Your task to perform on an android device: What's on my calendar today? Image 0: 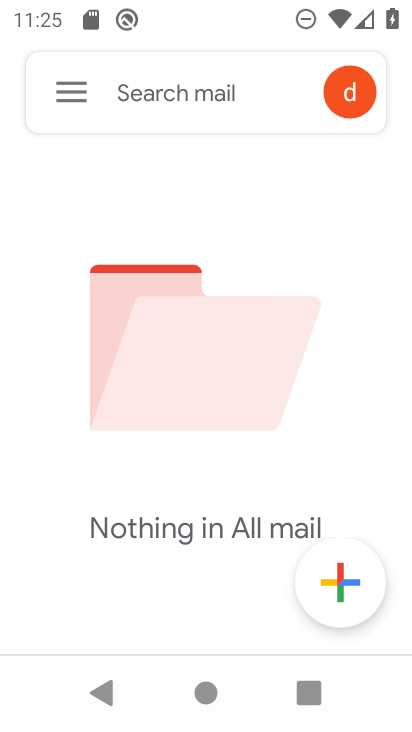
Step 0: press home button
Your task to perform on an android device: What's on my calendar today? Image 1: 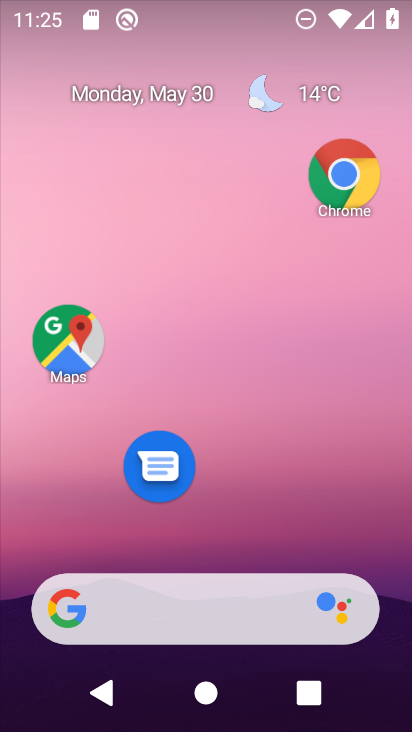
Step 1: drag from (267, 436) to (176, 95)
Your task to perform on an android device: What's on my calendar today? Image 2: 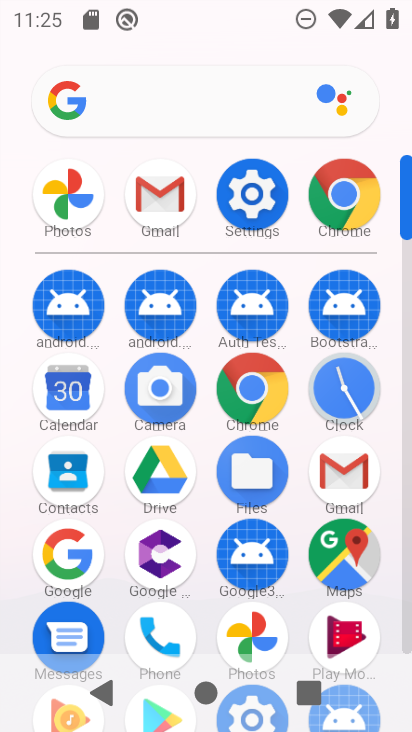
Step 2: click (42, 382)
Your task to perform on an android device: What's on my calendar today? Image 3: 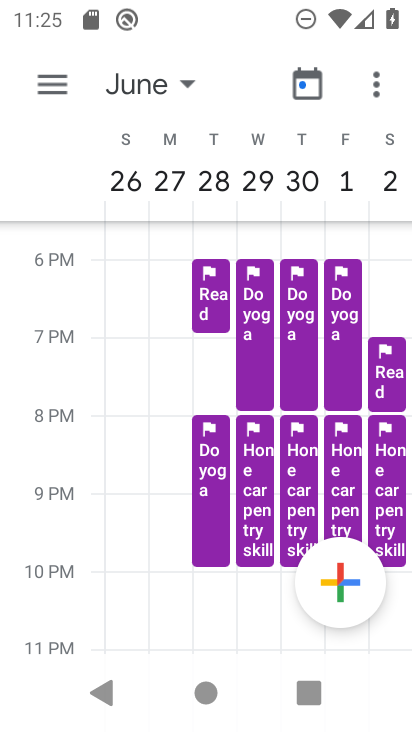
Step 3: click (56, 62)
Your task to perform on an android device: What's on my calendar today? Image 4: 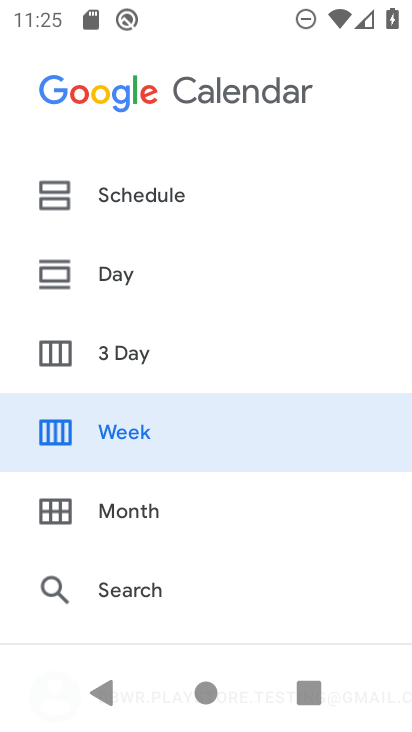
Step 4: click (199, 514)
Your task to perform on an android device: What's on my calendar today? Image 5: 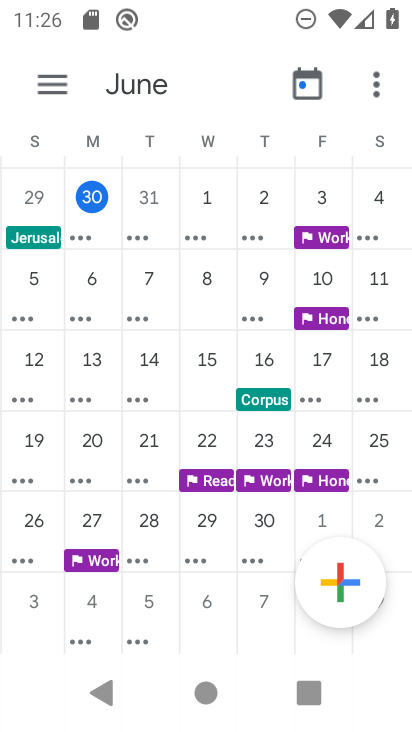
Step 5: click (155, 193)
Your task to perform on an android device: What's on my calendar today? Image 6: 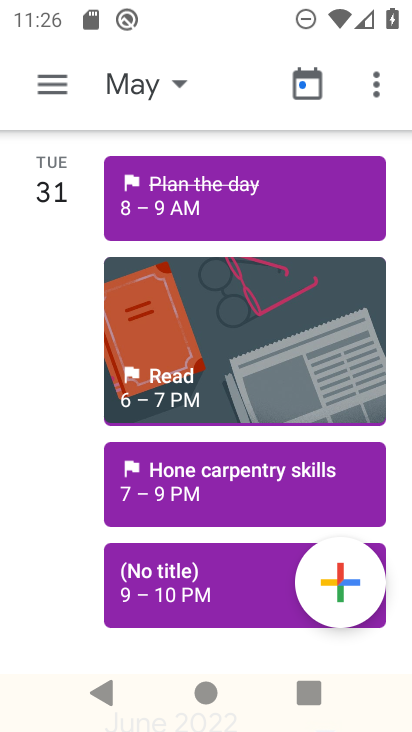
Step 6: task complete